Your task to perform on an android device: open the mobile data screen to see how much data has been used Image 0: 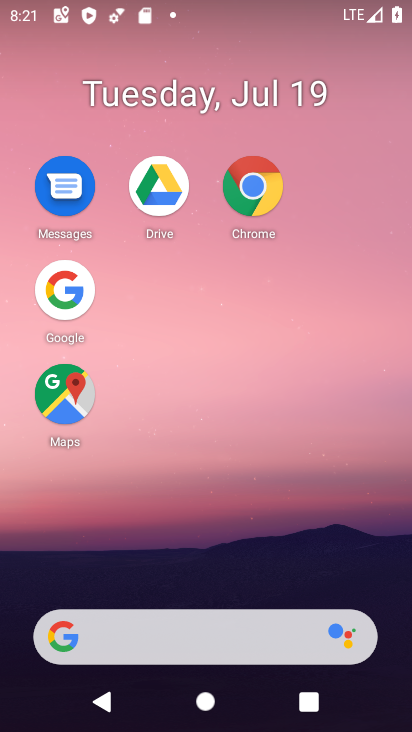
Step 0: drag from (197, 605) to (155, 16)
Your task to perform on an android device: open the mobile data screen to see how much data has been used Image 1: 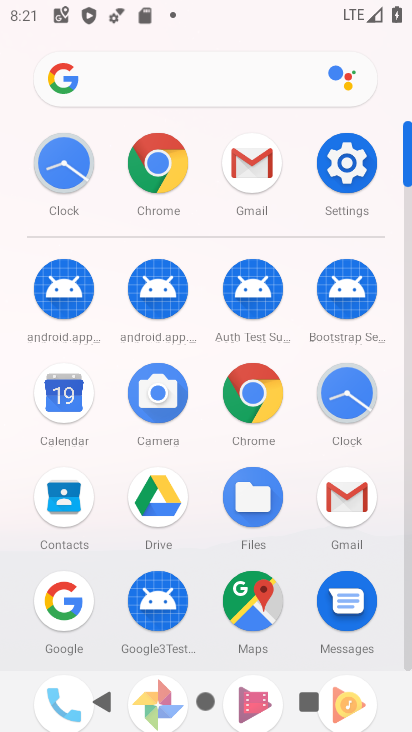
Step 1: click (364, 171)
Your task to perform on an android device: open the mobile data screen to see how much data has been used Image 2: 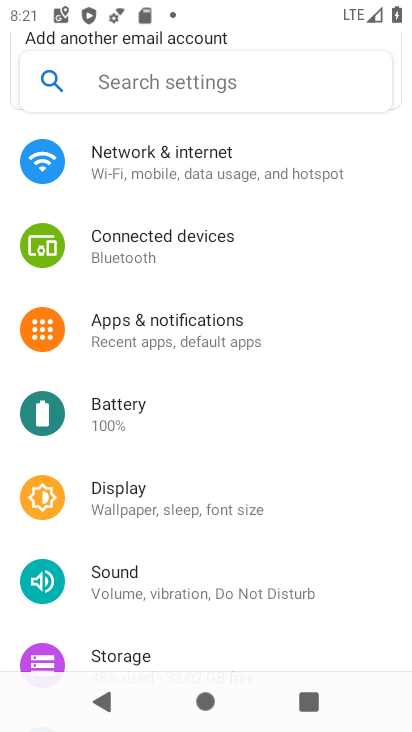
Step 2: click (174, 174)
Your task to perform on an android device: open the mobile data screen to see how much data has been used Image 3: 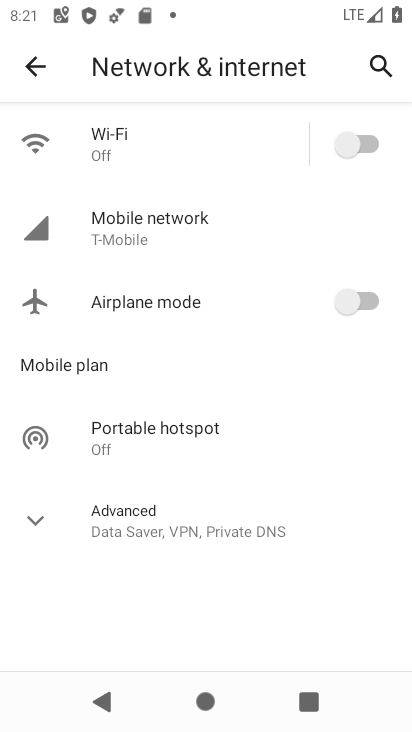
Step 3: click (140, 232)
Your task to perform on an android device: open the mobile data screen to see how much data has been used Image 4: 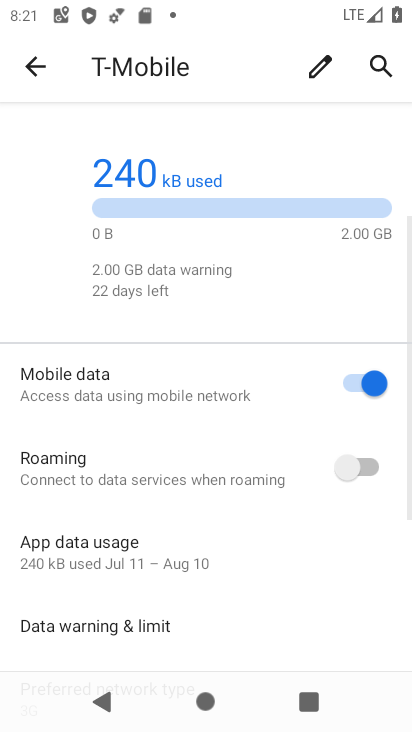
Step 4: task complete